Your task to perform on an android device: Open Google Chrome Image 0: 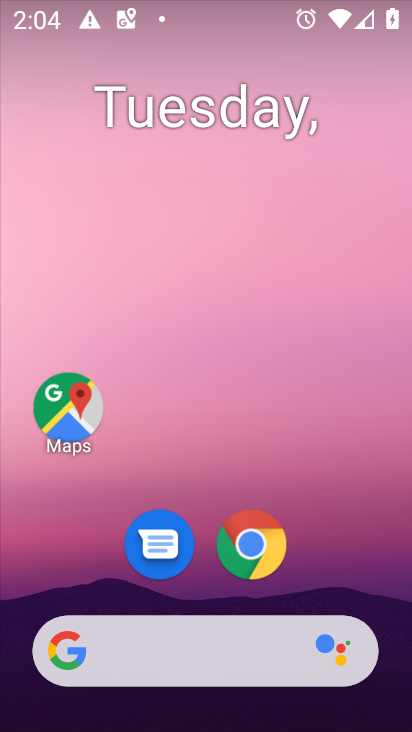
Step 0: click (257, 549)
Your task to perform on an android device: Open Google Chrome Image 1: 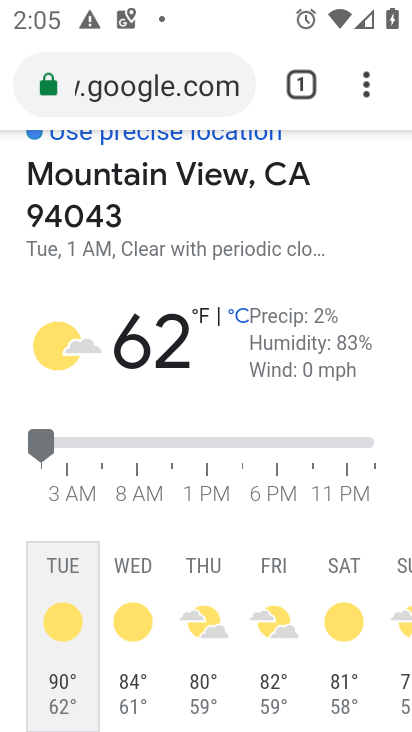
Step 1: task complete